Your task to perform on an android device: change the clock display to digital Image 0: 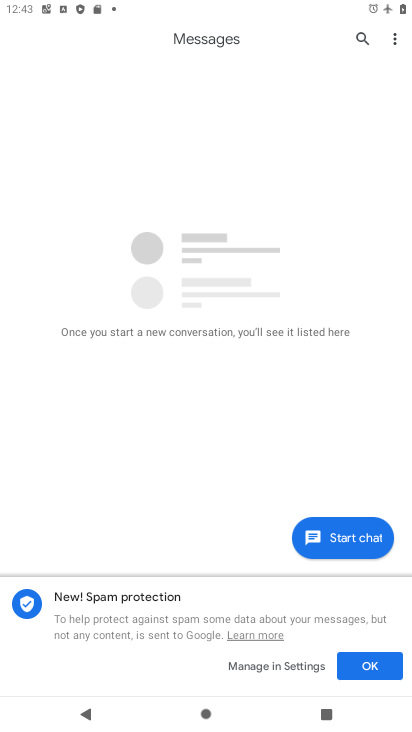
Step 0: press home button
Your task to perform on an android device: change the clock display to digital Image 1: 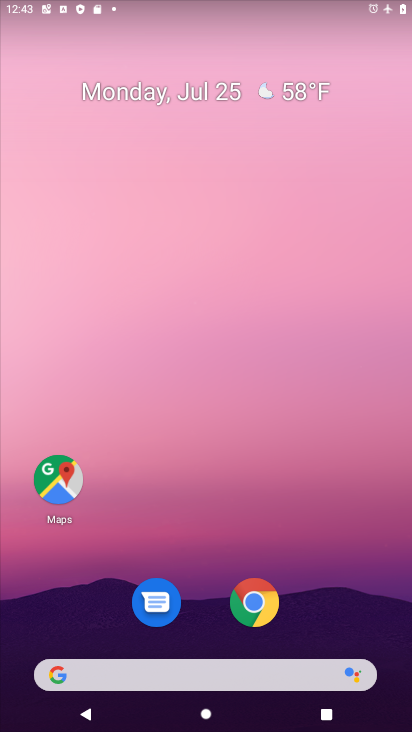
Step 1: drag from (218, 573) to (257, 119)
Your task to perform on an android device: change the clock display to digital Image 2: 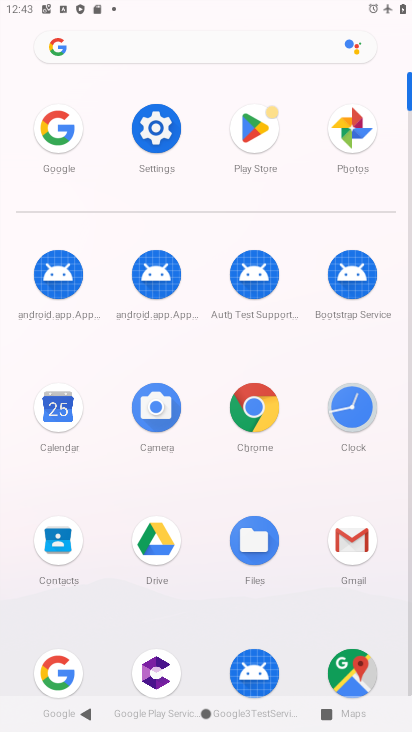
Step 2: click (336, 412)
Your task to perform on an android device: change the clock display to digital Image 3: 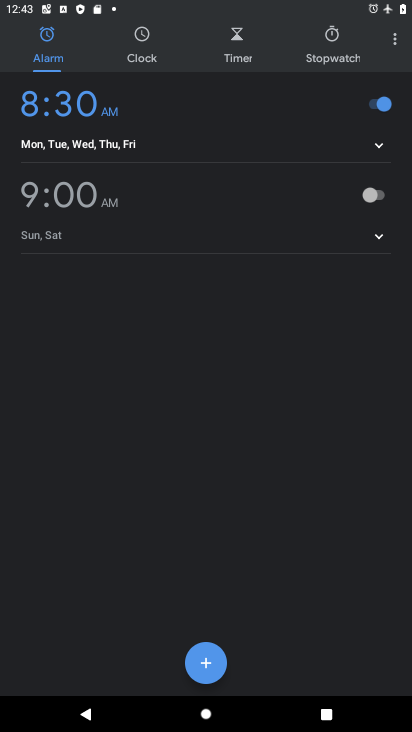
Step 3: click (384, 45)
Your task to perform on an android device: change the clock display to digital Image 4: 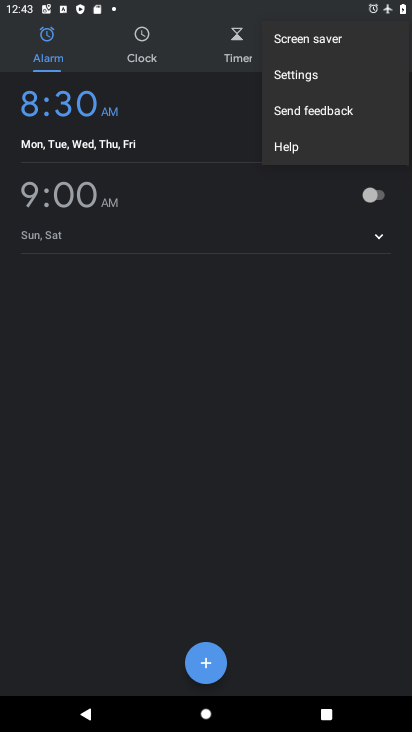
Step 4: click (304, 86)
Your task to perform on an android device: change the clock display to digital Image 5: 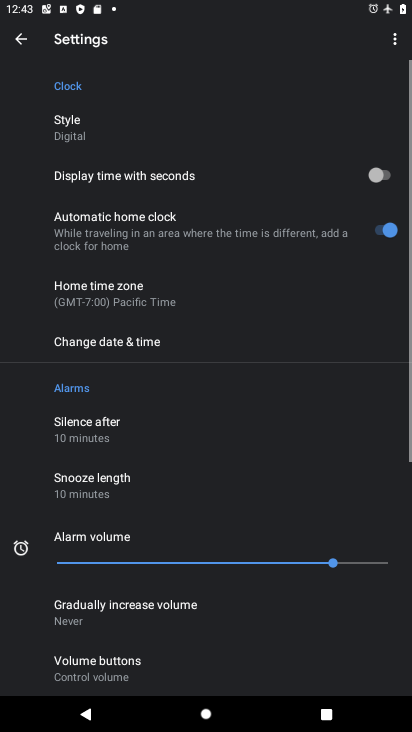
Step 5: click (123, 128)
Your task to perform on an android device: change the clock display to digital Image 6: 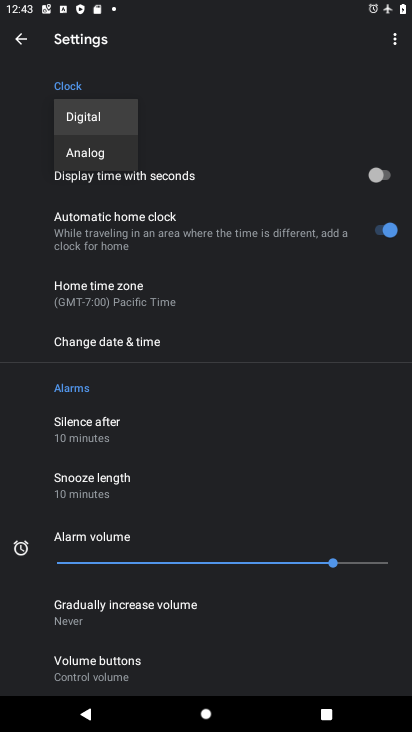
Step 6: task complete